Your task to perform on an android device: What is the news today? Image 0: 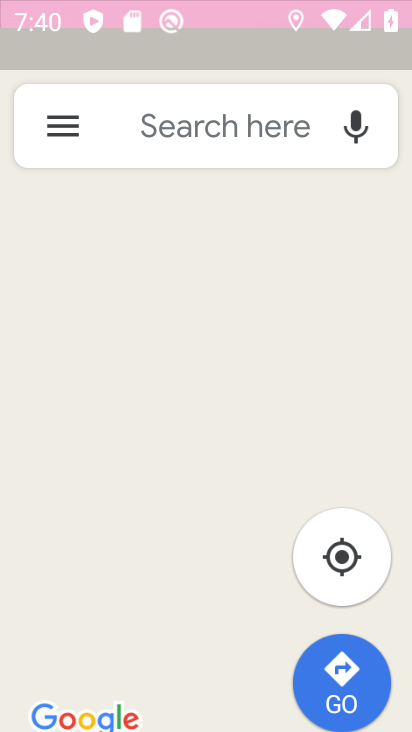
Step 0: click (179, 0)
Your task to perform on an android device: What is the news today? Image 1: 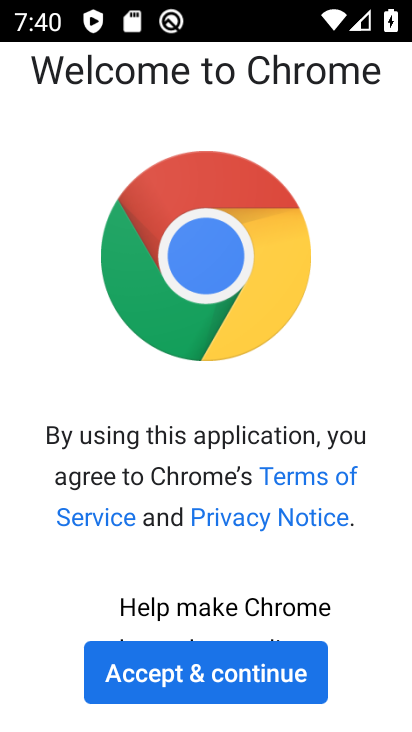
Step 1: press home button
Your task to perform on an android device: What is the news today? Image 2: 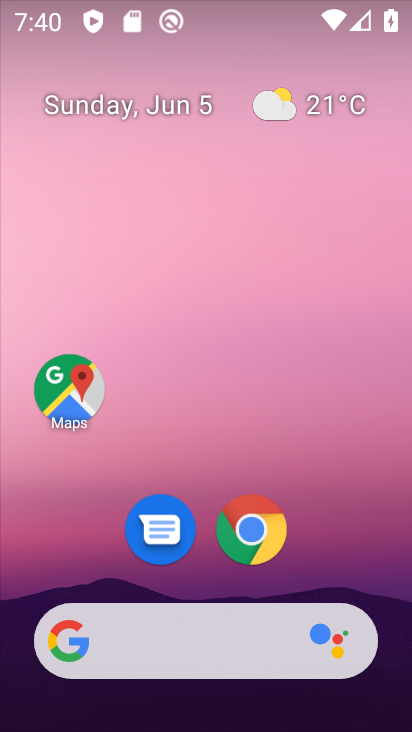
Step 2: drag from (127, 694) to (245, 15)
Your task to perform on an android device: What is the news today? Image 3: 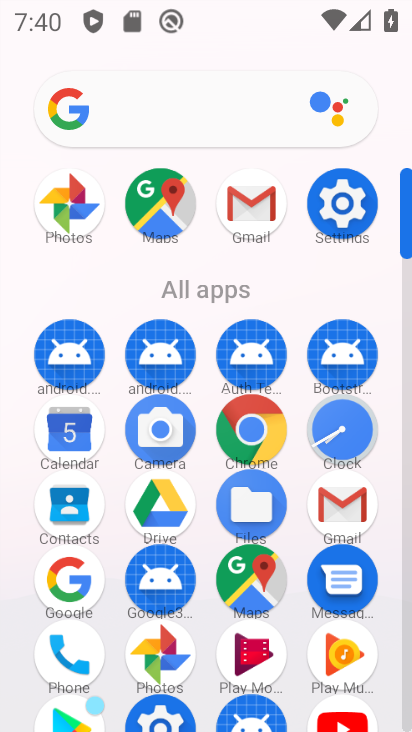
Step 3: click (73, 440)
Your task to perform on an android device: What is the news today? Image 4: 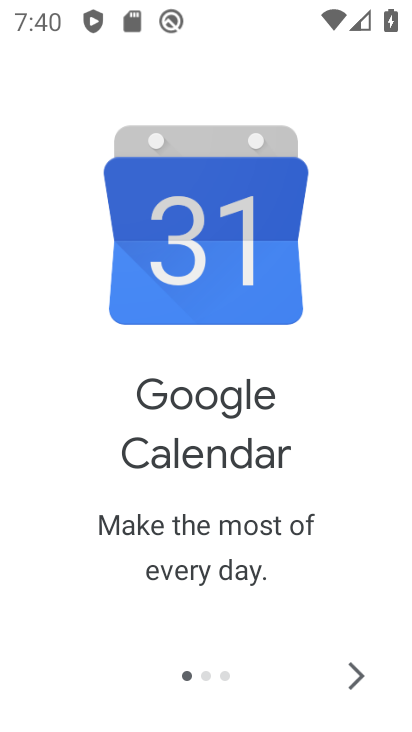
Step 4: click (361, 686)
Your task to perform on an android device: What is the news today? Image 5: 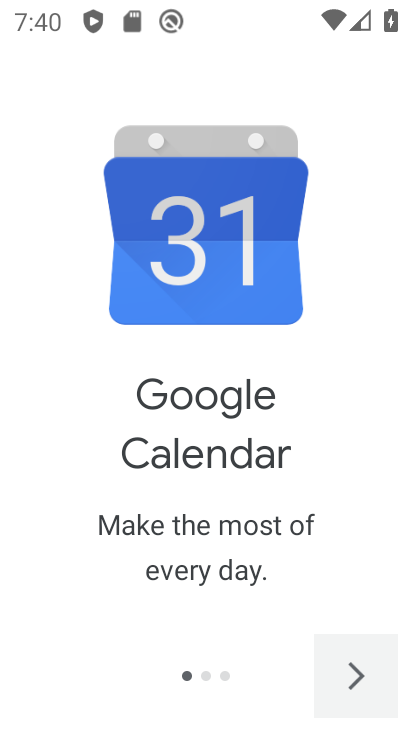
Step 5: click (361, 686)
Your task to perform on an android device: What is the news today? Image 6: 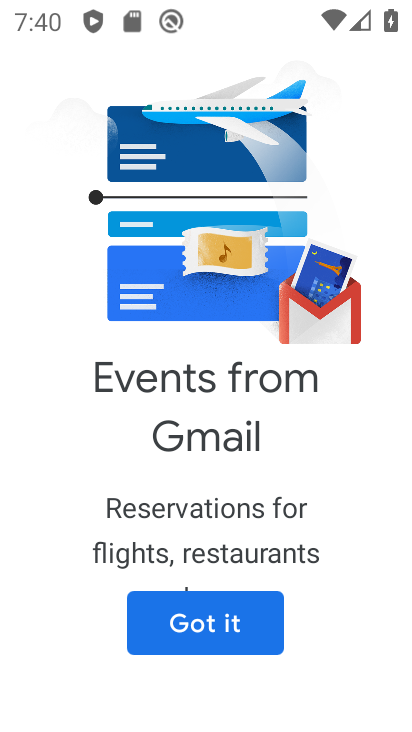
Step 6: click (361, 686)
Your task to perform on an android device: What is the news today? Image 7: 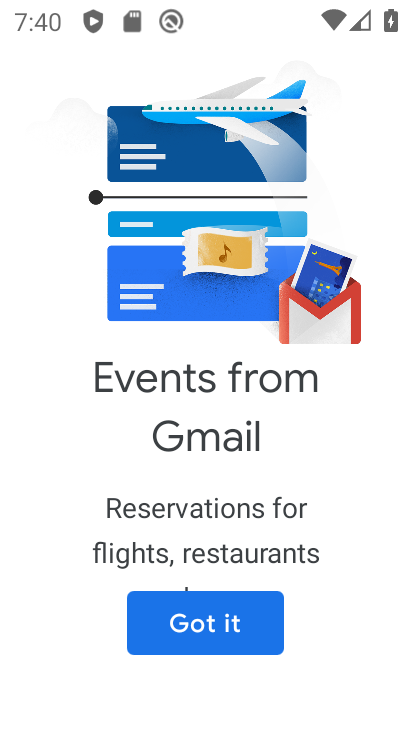
Step 7: click (190, 620)
Your task to perform on an android device: What is the news today? Image 8: 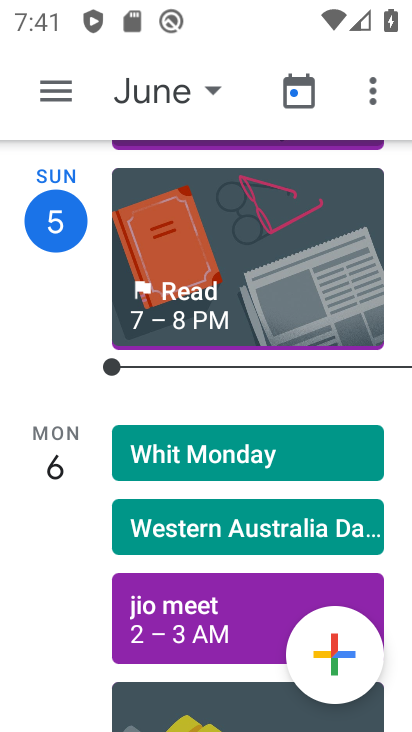
Step 8: task complete